Your task to perform on an android device: open device folders in google photos Image 0: 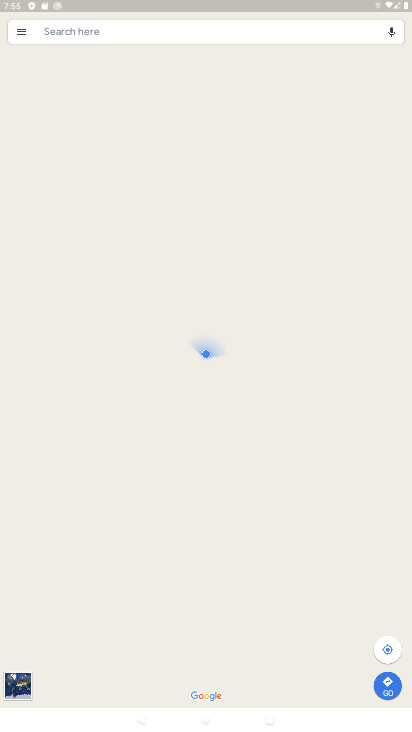
Step 0: press home button
Your task to perform on an android device: open device folders in google photos Image 1: 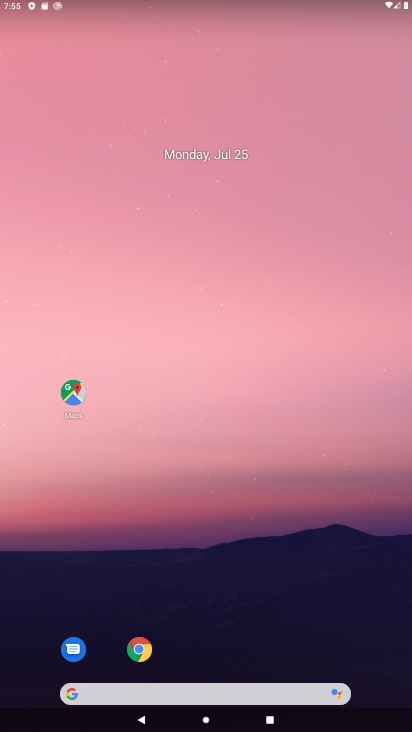
Step 1: click (249, 230)
Your task to perform on an android device: open device folders in google photos Image 2: 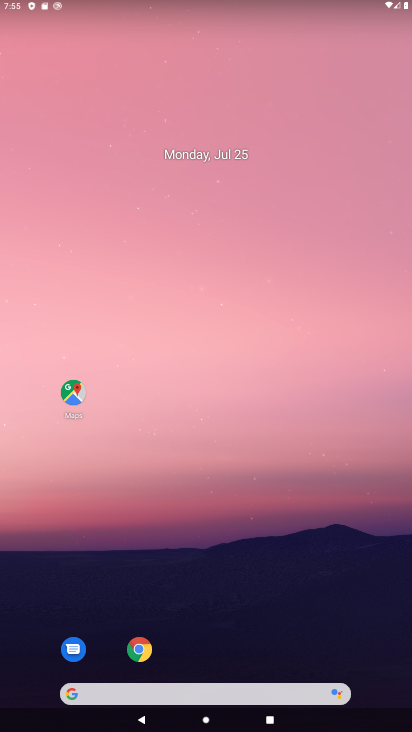
Step 2: drag from (228, 651) to (231, 162)
Your task to perform on an android device: open device folders in google photos Image 3: 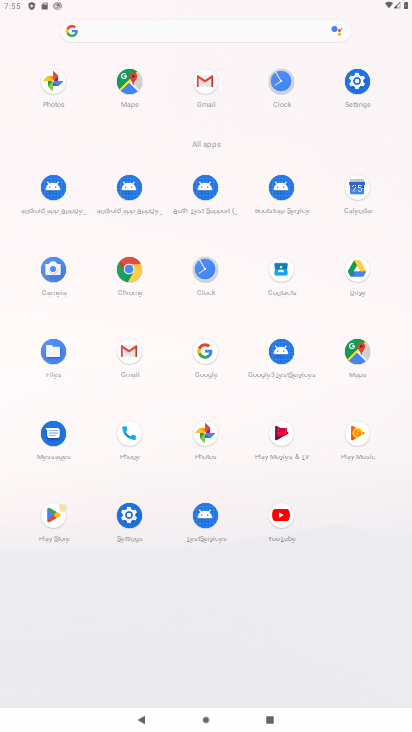
Step 3: click (59, 100)
Your task to perform on an android device: open device folders in google photos Image 4: 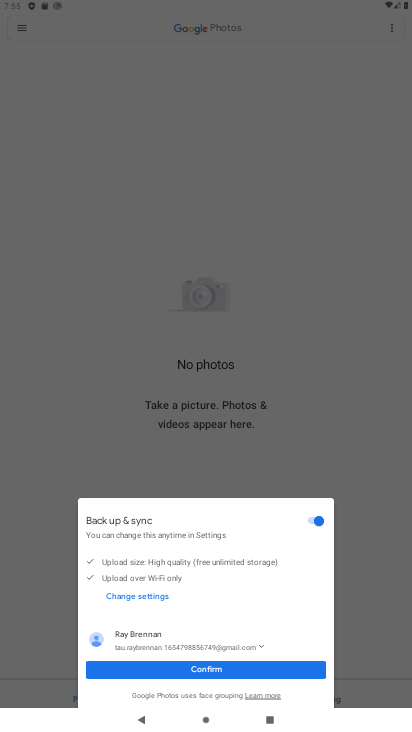
Step 4: click (183, 670)
Your task to perform on an android device: open device folders in google photos Image 5: 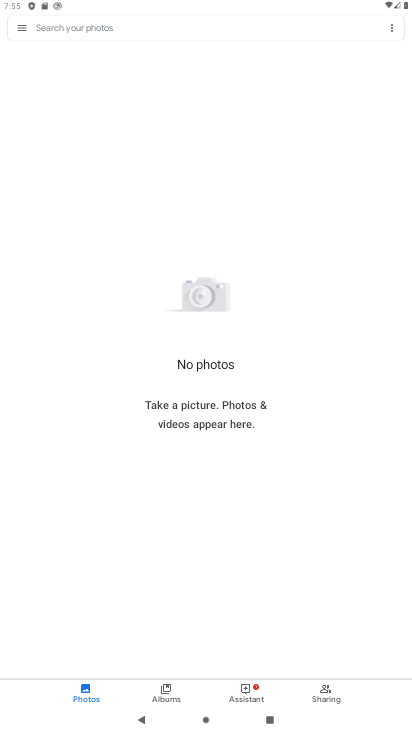
Step 5: click (22, 30)
Your task to perform on an android device: open device folders in google photos Image 6: 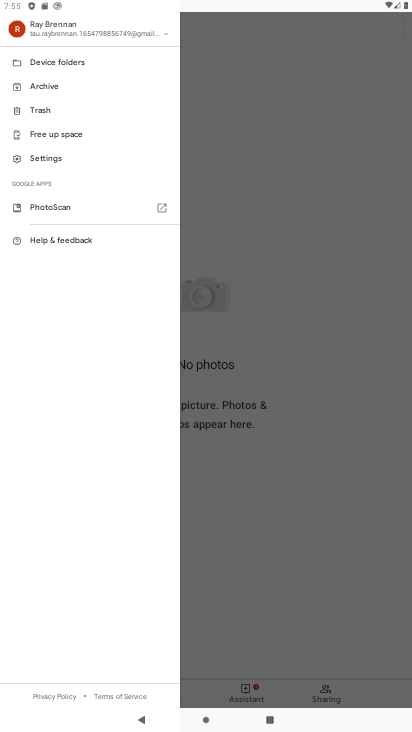
Step 6: click (61, 64)
Your task to perform on an android device: open device folders in google photos Image 7: 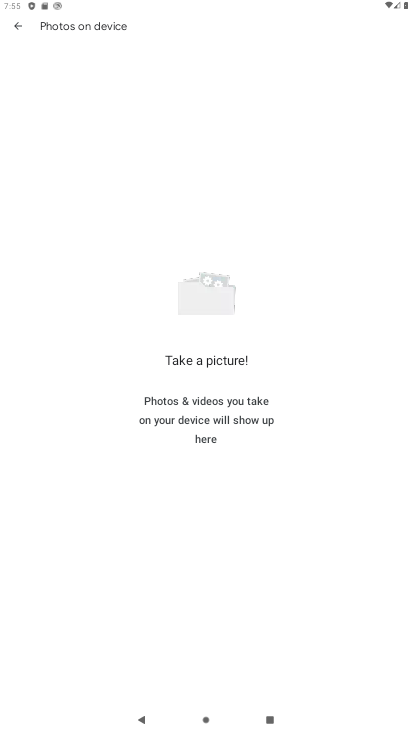
Step 7: task complete